Your task to perform on an android device: Open calendar and show me the first week of next month Image 0: 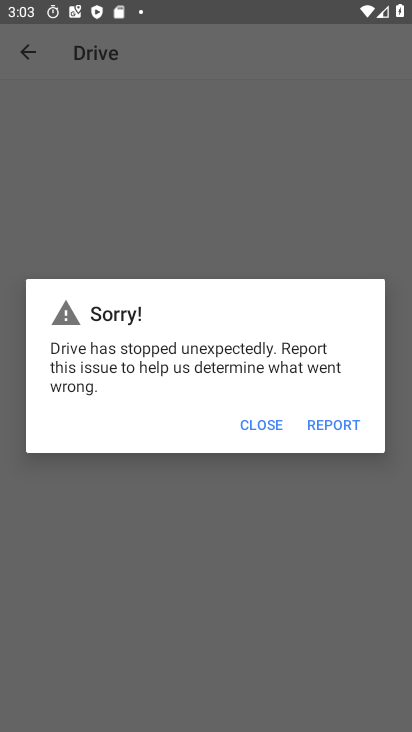
Step 0: click (252, 431)
Your task to perform on an android device: Open calendar and show me the first week of next month Image 1: 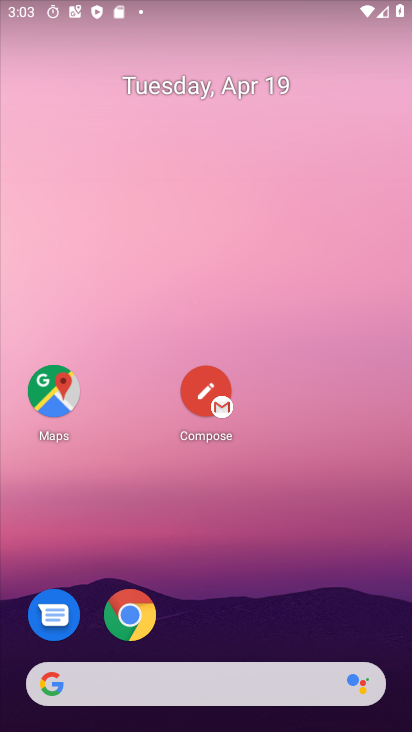
Step 1: drag from (182, 531) to (207, 56)
Your task to perform on an android device: Open calendar and show me the first week of next month Image 2: 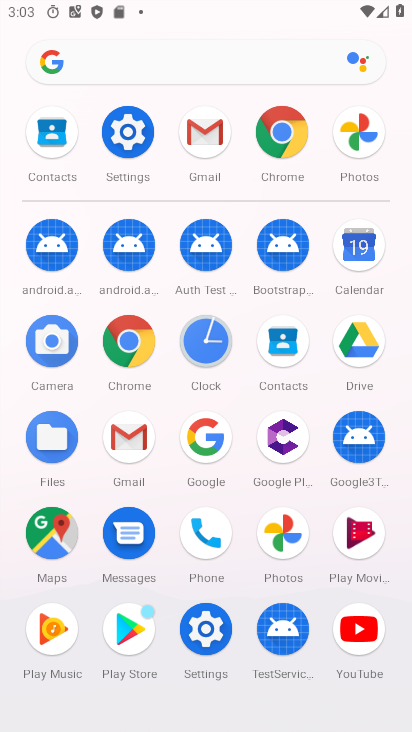
Step 2: click (358, 258)
Your task to perform on an android device: Open calendar and show me the first week of next month Image 3: 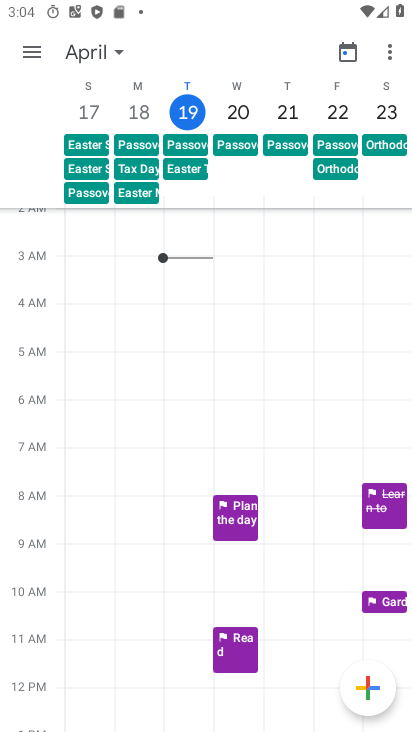
Step 3: click (118, 51)
Your task to perform on an android device: Open calendar and show me the first week of next month Image 4: 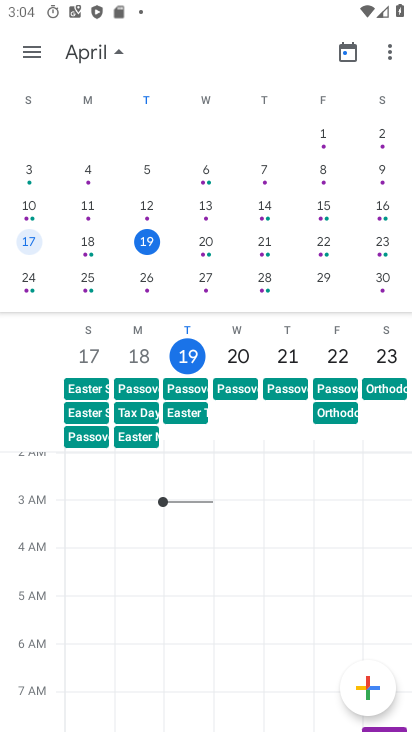
Step 4: drag from (347, 245) to (51, 245)
Your task to perform on an android device: Open calendar and show me the first week of next month Image 5: 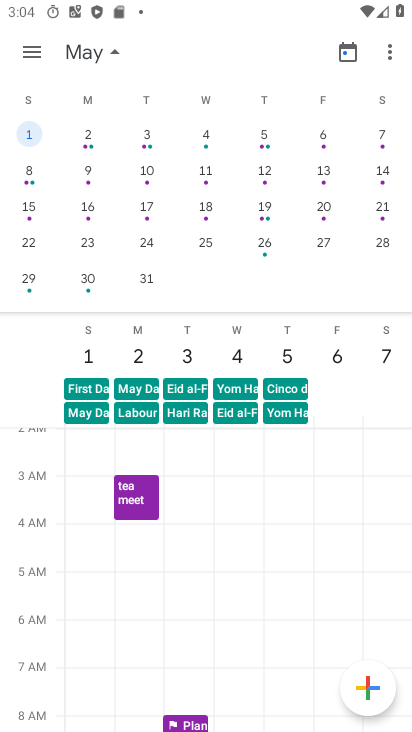
Step 5: click (262, 140)
Your task to perform on an android device: Open calendar and show me the first week of next month Image 6: 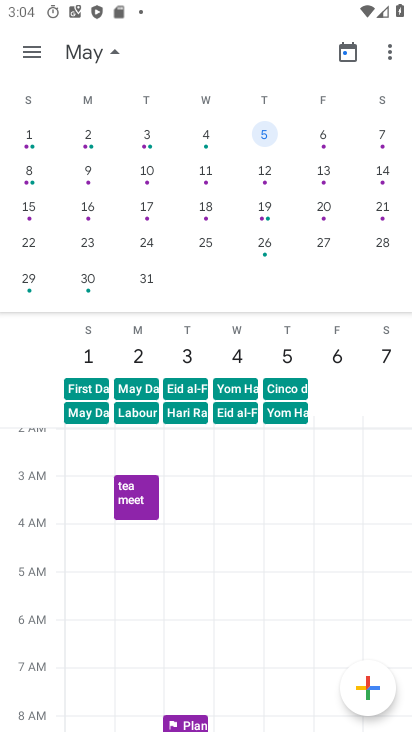
Step 6: click (17, 53)
Your task to perform on an android device: Open calendar and show me the first week of next month Image 7: 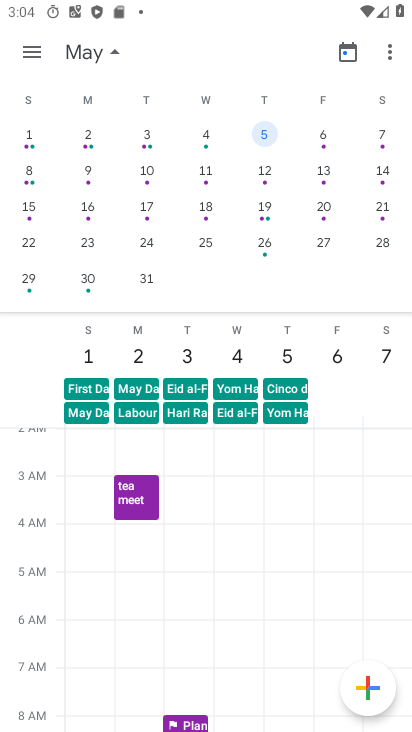
Step 7: click (38, 51)
Your task to perform on an android device: Open calendar and show me the first week of next month Image 8: 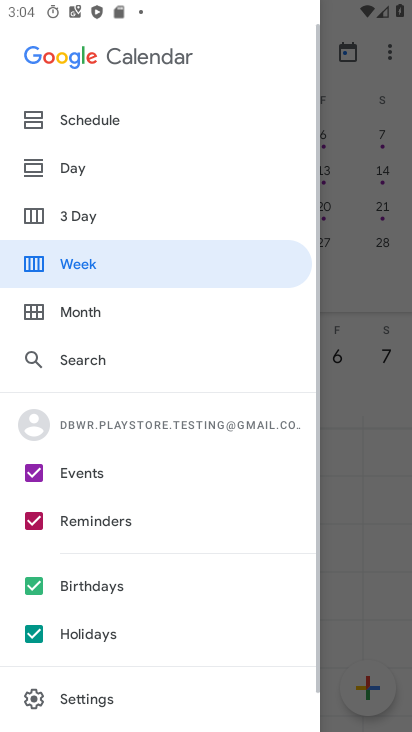
Step 8: click (106, 270)
Your task to perform on an android device: Open calendar and show me the first week of next month Image 9: 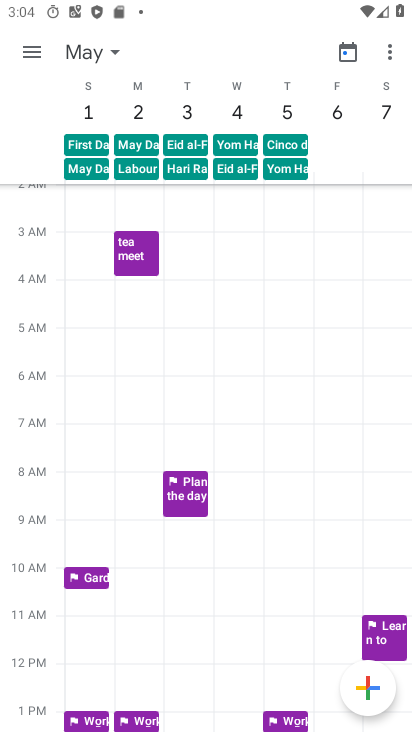
Step 9: task complete